Your task to perform on an android device: check out phone information Image 0: 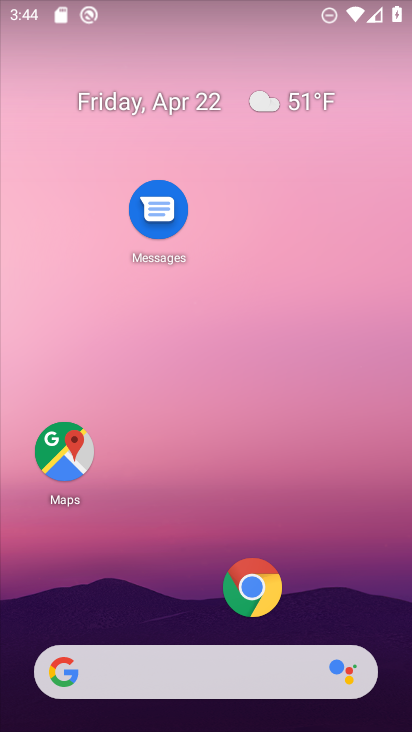
Step 0: drag from (206, 610) to (271, 93)
Your task to perform on an android device: check out phone information Image 1: 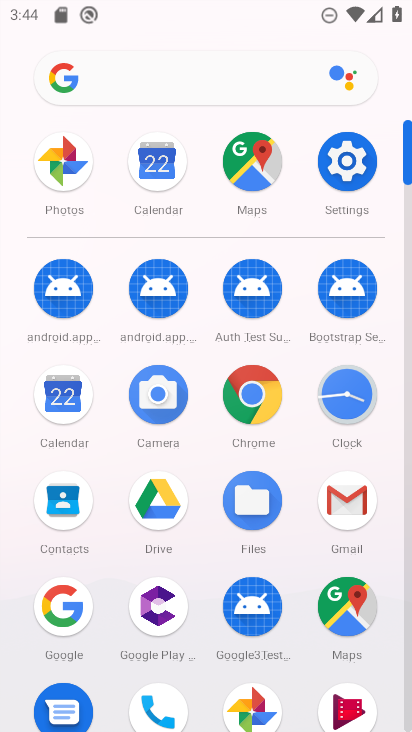
Step 1: click (334, 155)
Your task to perform on an android device: check out phone information Image 2: 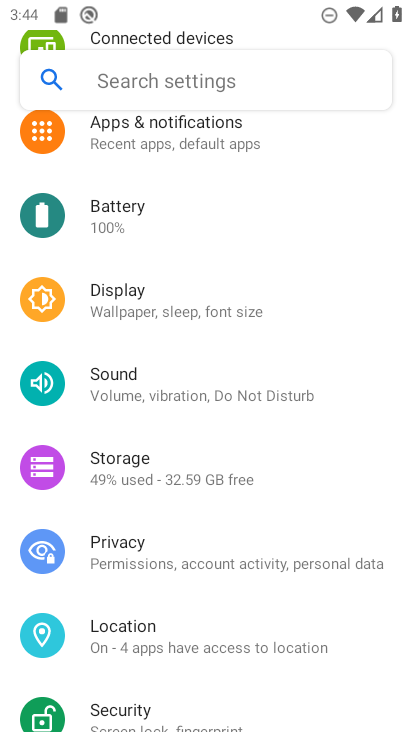
Step 2: drag from (174, 697) to (227, 147)
Your task to perform on an android device: check out phone information Image 3: 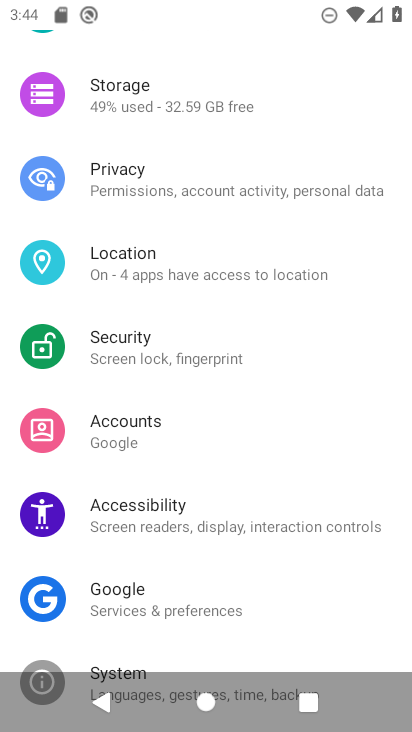
Step 3: drag from (258, 481) to (252, 128)
Your task to perform on an android device: check out phone information Image 4: 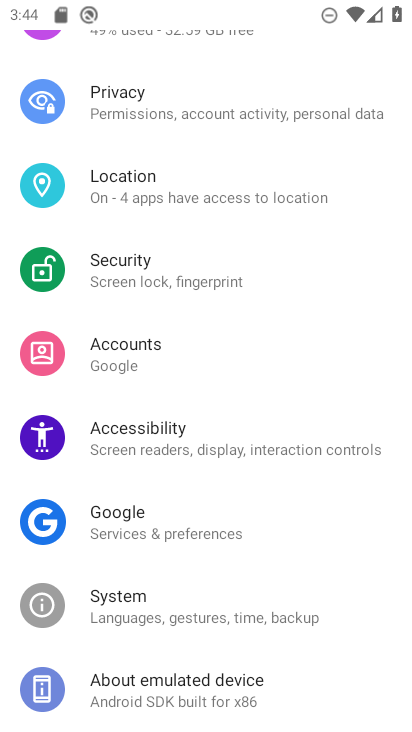
Step 4: drag from (241, 497) to (262, 141)
Your task to perform on an android device: check out phone information Image 5: 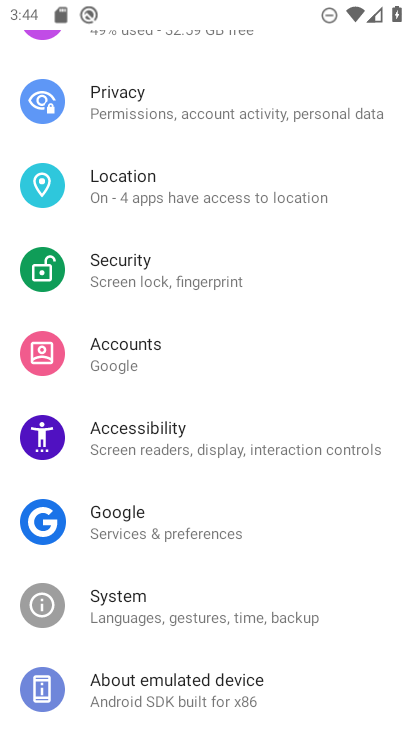
Step 5: drag from (278, 271) to (302, 152)
Your task to perform on an android device: check out phone information Image 6: 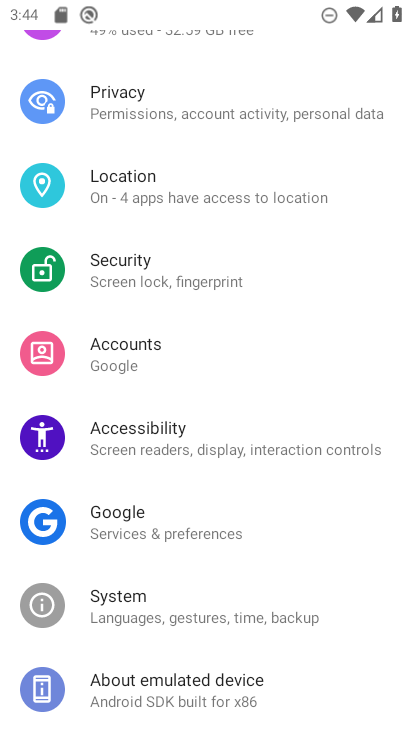
Step 6: drag from (258, 616) to (292, 188)
Your task to perform on an android device: check out phone information Image 7: 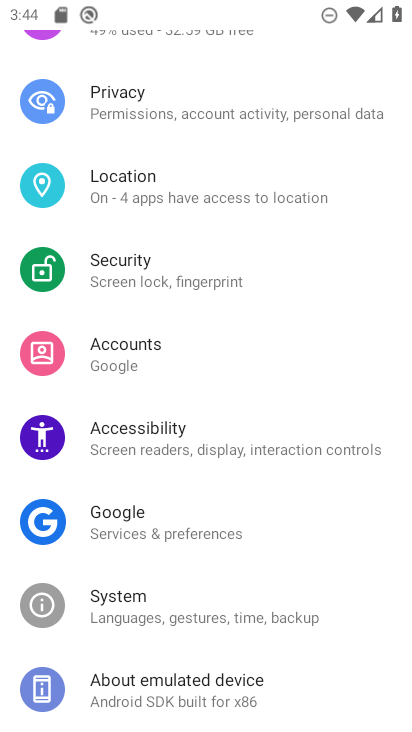
Step 7: click (244, 679)
Your task to perform on an android device: check out phone information Image 8: 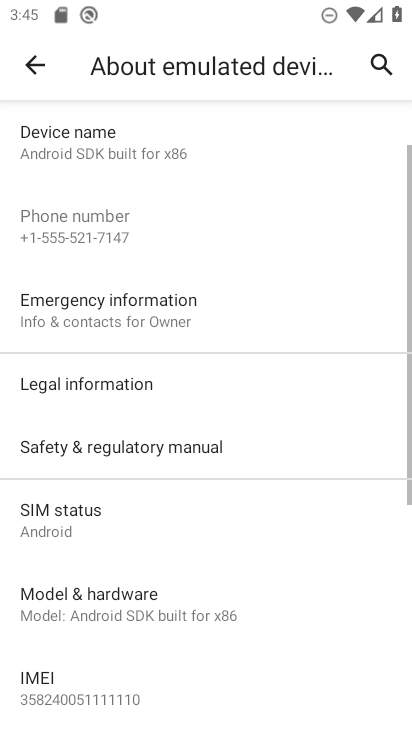
Step 8: task complete